Your task to perform on an android device: Open calendar and show me the second week of next month Image 0: 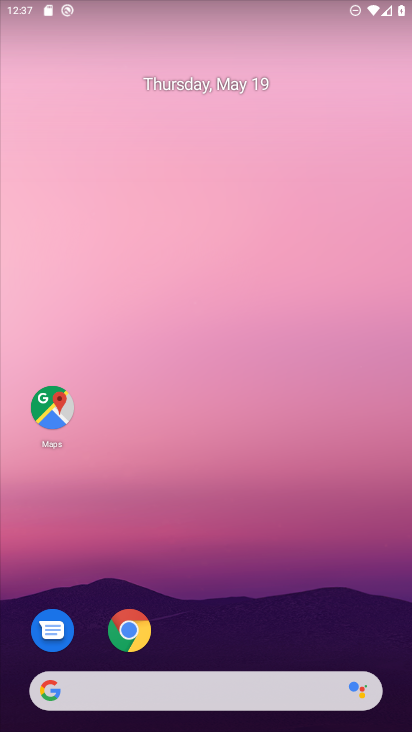
Step 0: click (260, 96)
Your task to perform on an android device: Open calendar and show me the second week of next month Image 1: 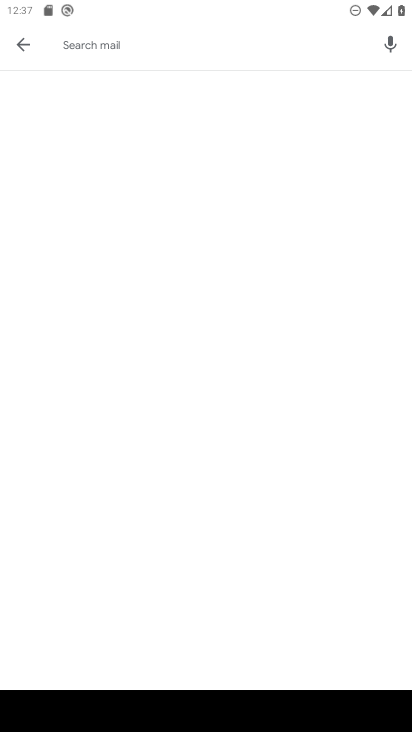
Step 1: press home button
Your task to perform on an android device: Open calendar and show me the second week of next month Image 2: 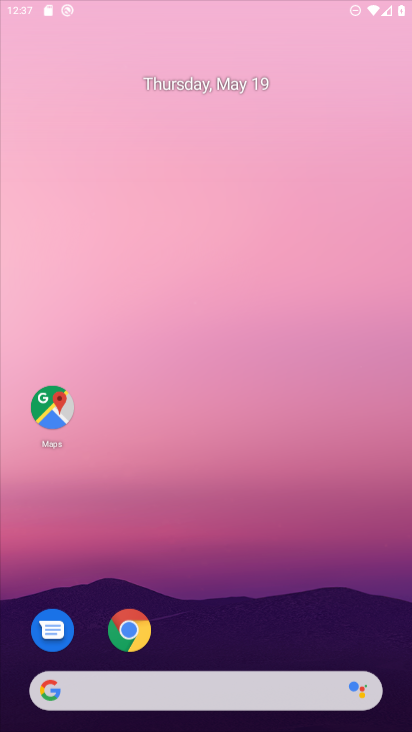
Step 2: drag from (178, 599) to (229, 105)
Your task to perform on an android device: Open calendar and show me the second week of next month Image 3: 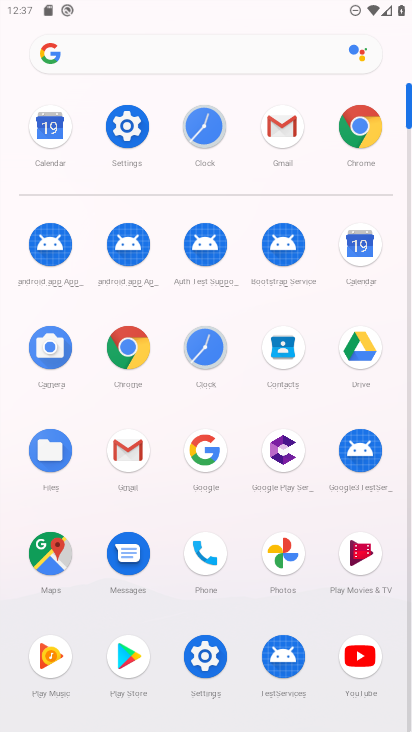
Step 3: click (354, 248)
Your task to perform on an android device: Open calendar and show me the second week of next month Image 4: 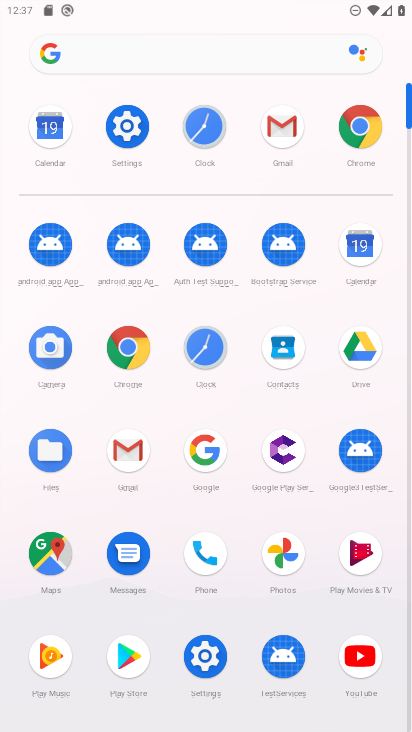
Step 4: click (354, 248)
Your task to perform on an android device: Open calendar and show me the second week of next month Image 5: 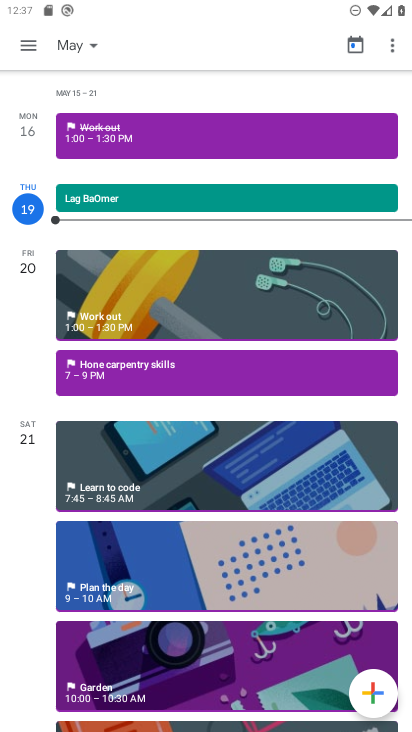
Step 5: click (72, 39)
Your task to perform on an android device: Open calendar and show me the second week of next month Image 6: 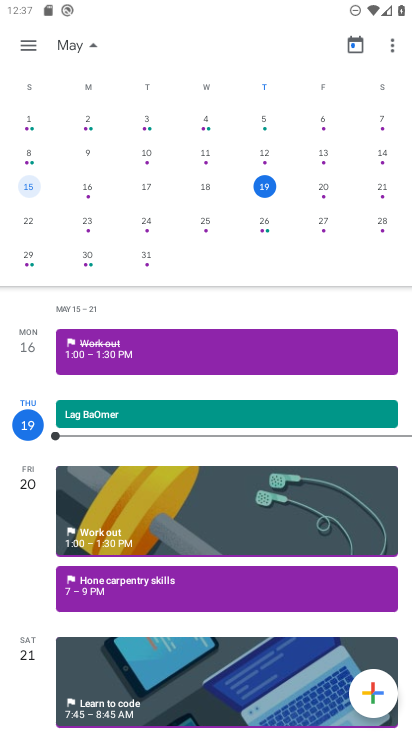
Step 6: drag from (368, 183) to (17, 166)
Your task to perform on an android device: Open calendar and show me the second week of next month Image 7: 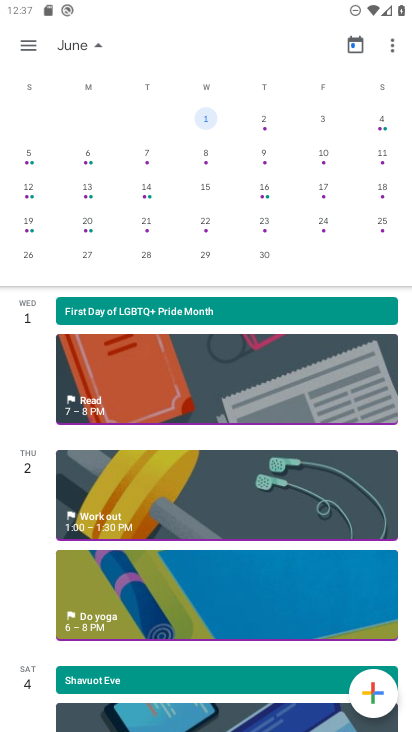
Step 7: click (269, 158)
Your task to perform on an android device: Open calendar and show me the second week of next month Image 8: 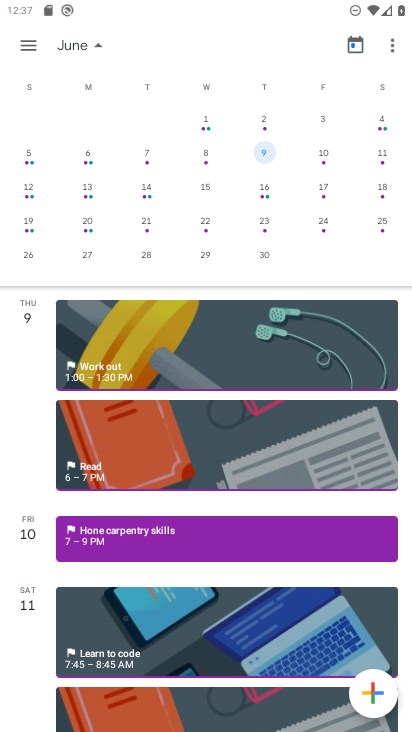
Step 8: task complete